Your task to perform on an android device: Open display settings Image 0: 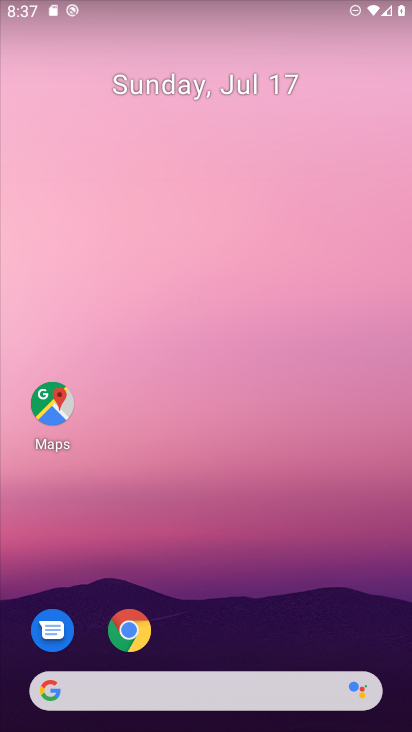
Step 0: drag from (254, 662) to (263, 106)
Your task to perform on an android device: Open display settings Image 1: 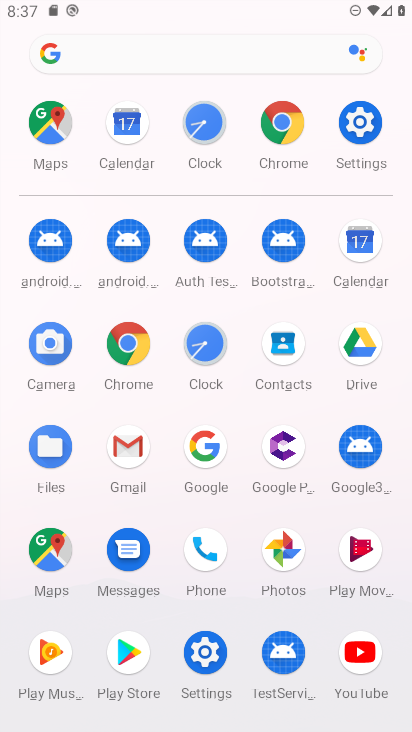
Step 1: click (365, 111)
Your task to perform on an android device: Open display settings Image 2: 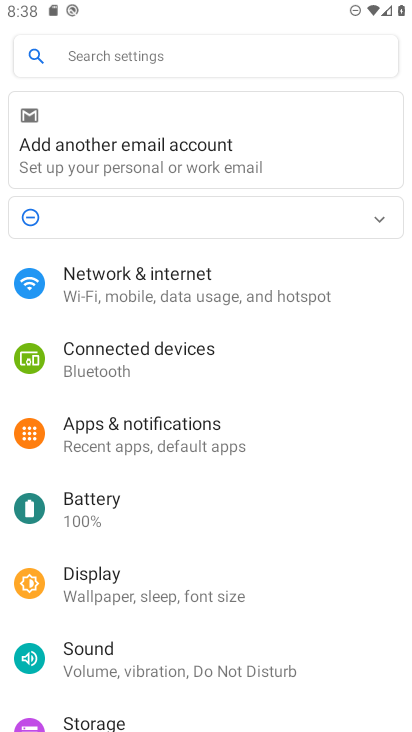
Step 2: click (172, 601)
Your task to perform on an android device: Open display settings Image 3: 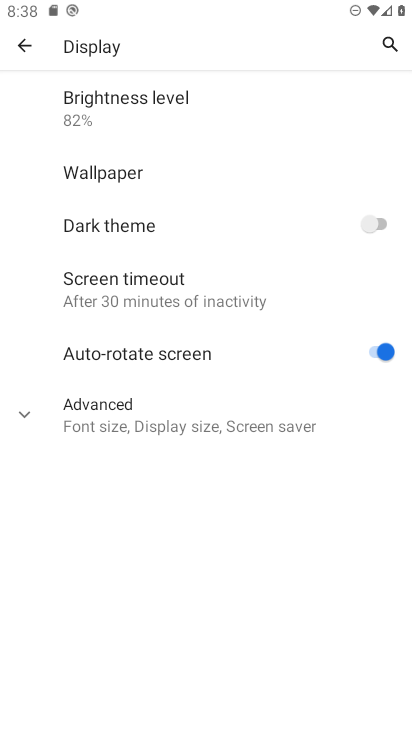
Step 3: task complete